Your task to perform on an android device: Go to privacy settings Image 0: 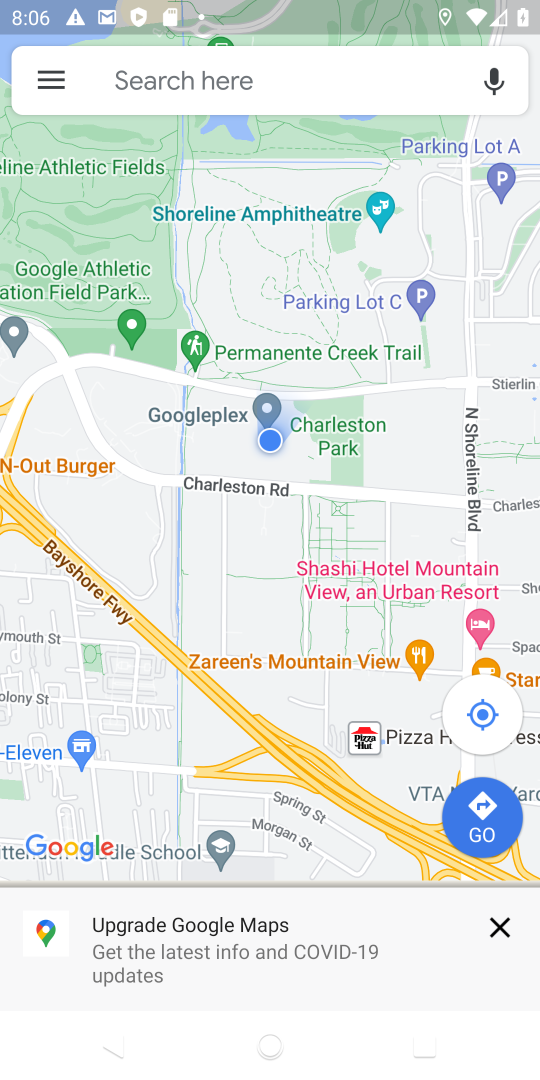
Step 0: press home button
Your task to perform on an android device: Go to privacy settings Image 1: 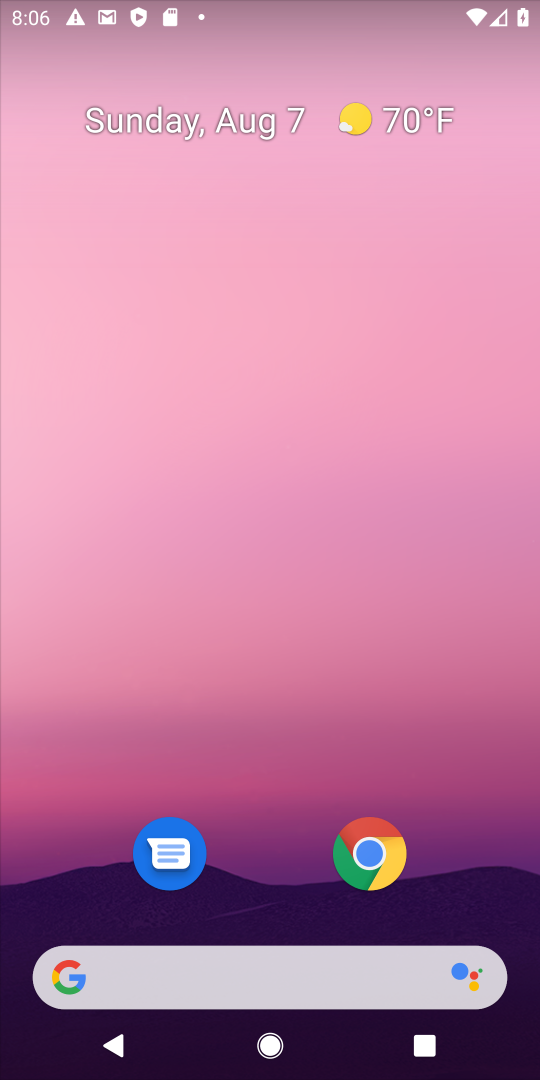
Step 1: drag from (266, 878) to (375, 7)
Your task to perform on an android device: Go to privacy settings Image 2: 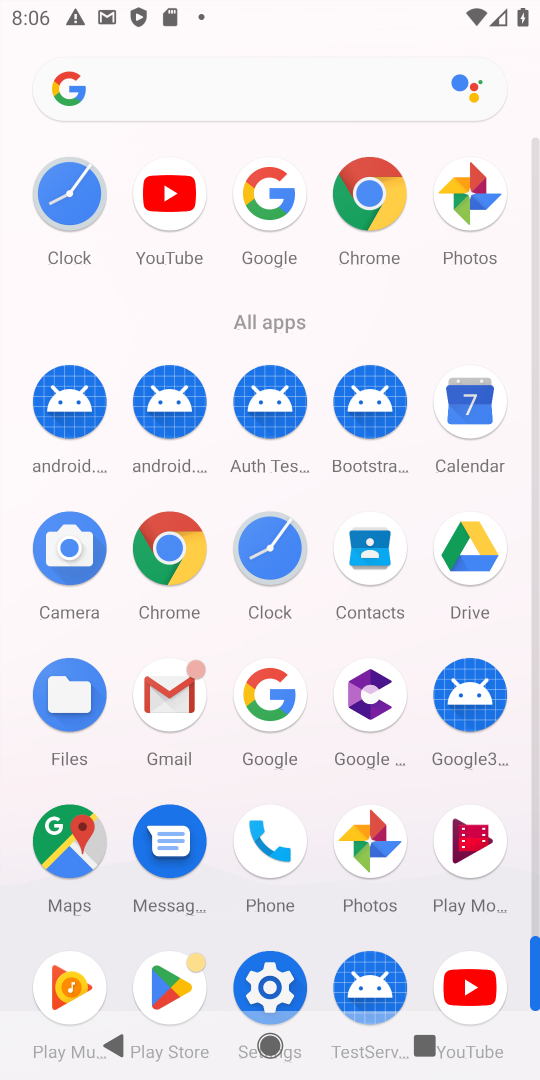
Step 2: drag from (287, 699) to (320, 146)
Your task to perform on an android device: Go to privacy settings Image 3: 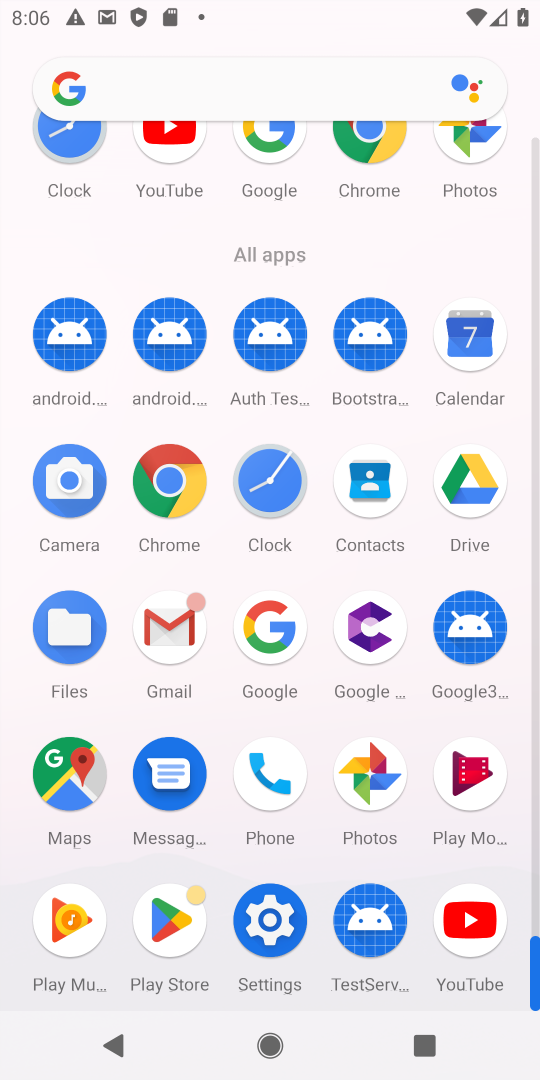
Step 3: click (271, 942)
Your task to perform on an android device: Go to privacy settings Image 4: 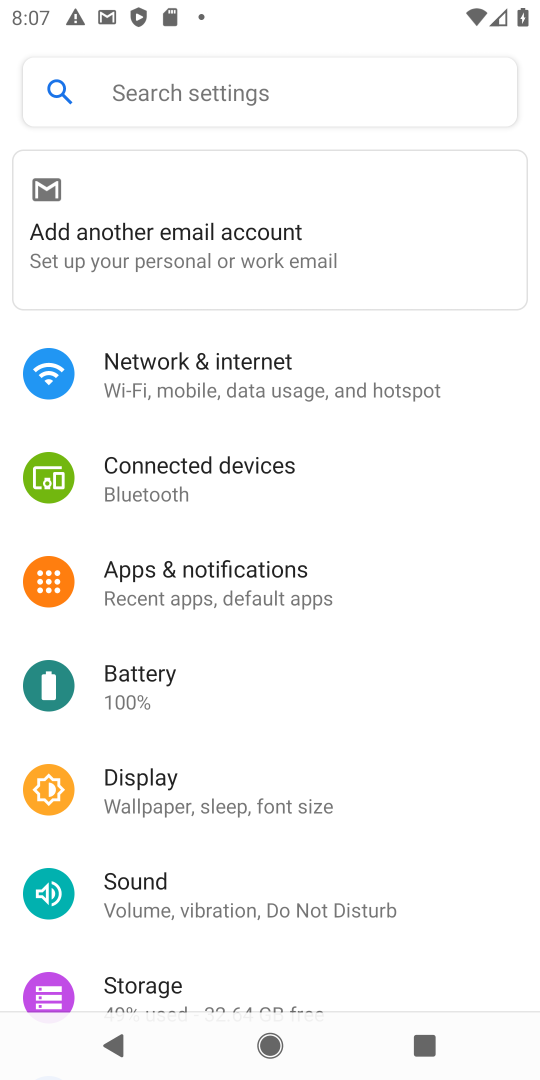
Step 4: drag from (186, 864) to (203, 467)
Your task to perform on an android device: Go to privacy settings Image 5: 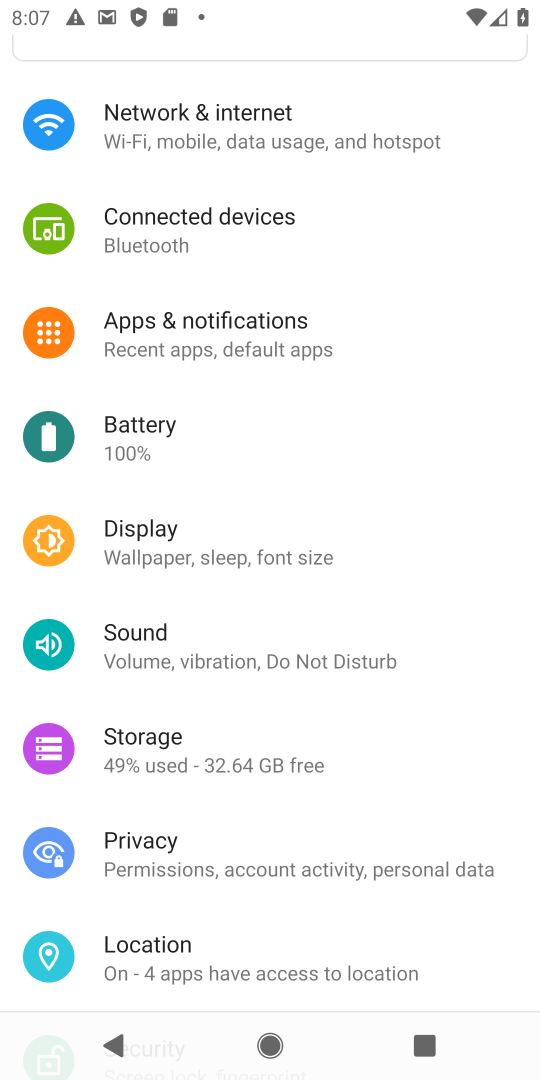
Step 5: click (248, 865)
Your task to perform on an android device: Go to privacy settings Image 6: 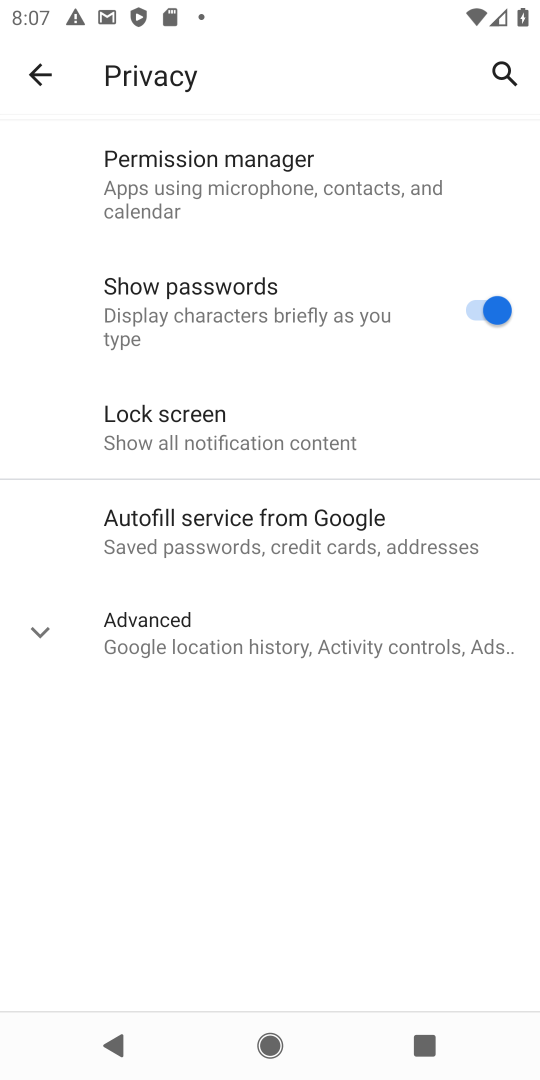
Step 6: task complete